Your task to perform on an android device: Search for Mexican restaurants on Maps Image 0: 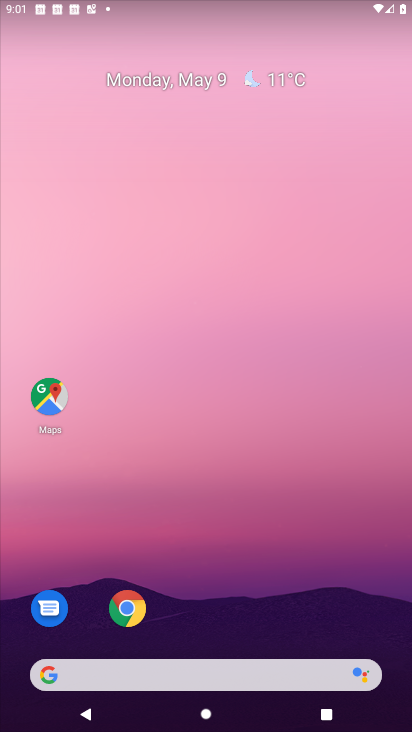
Step 0: click (43, 395)
Your task to perform on an android device: Search for Mexican restaurants on Maps Image 1: 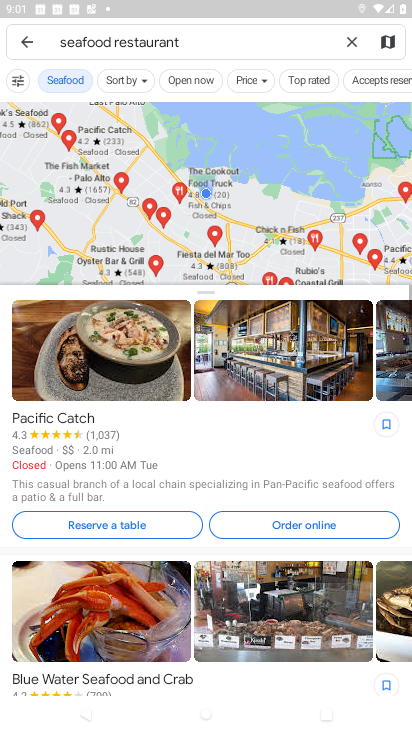
Step 1: click (114, 44)
Your task to perform on an android device: Search for Mexican restaurants on Maps Image 2: 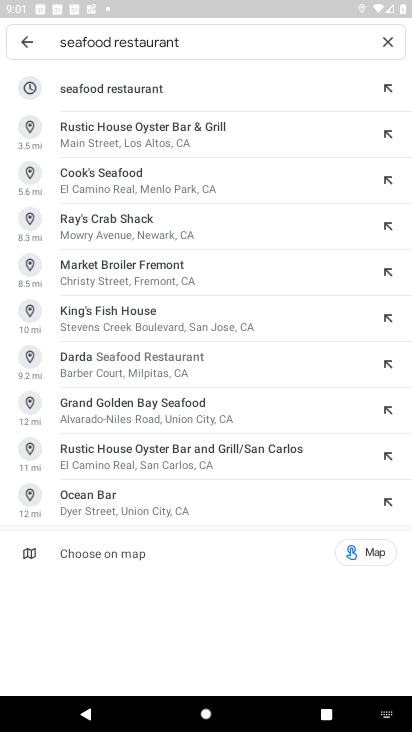
Step 2: click (388, 43)
Your task to perform on an android device: Search for Mexican restaurants on Maps Image 3: 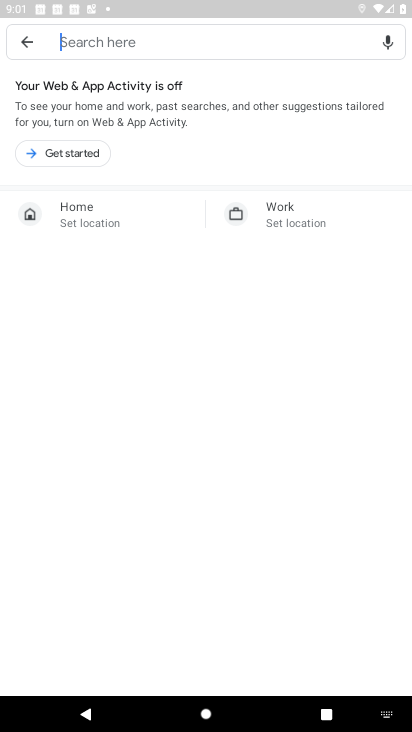
Step 3: type "Mexican restaurants"
Your task to perform on an android device: Search for Mexican restaurants on Maps Image 4: 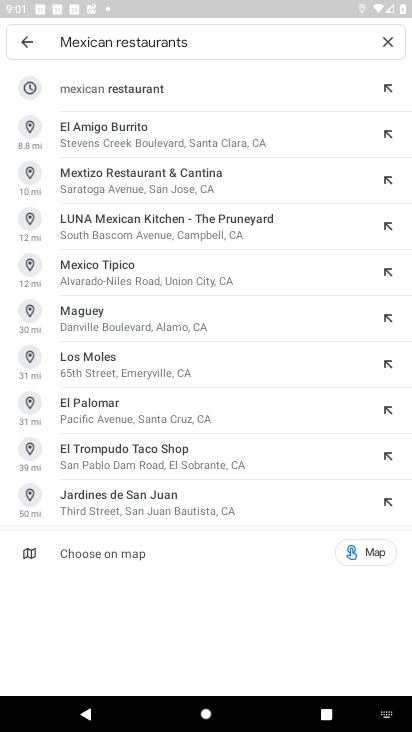
Step 4: click (133, 86)
Your task to perform on an android device: Search for Mexican restaurants on Maps Image 5: 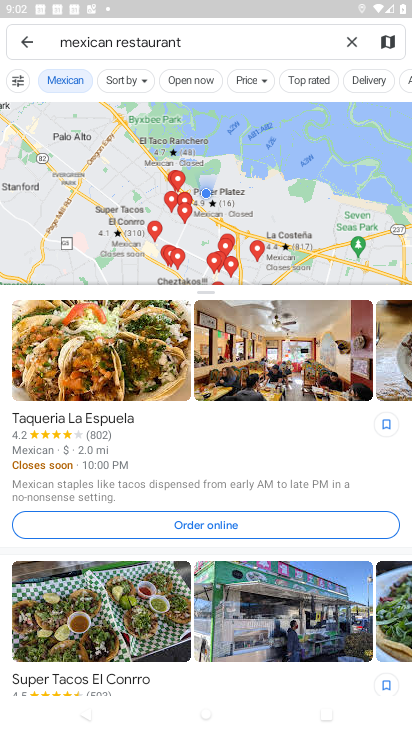
Step 5: task complete